Your task to perform on an android device: install app "DoorDash - Food Delivery" Image 0: 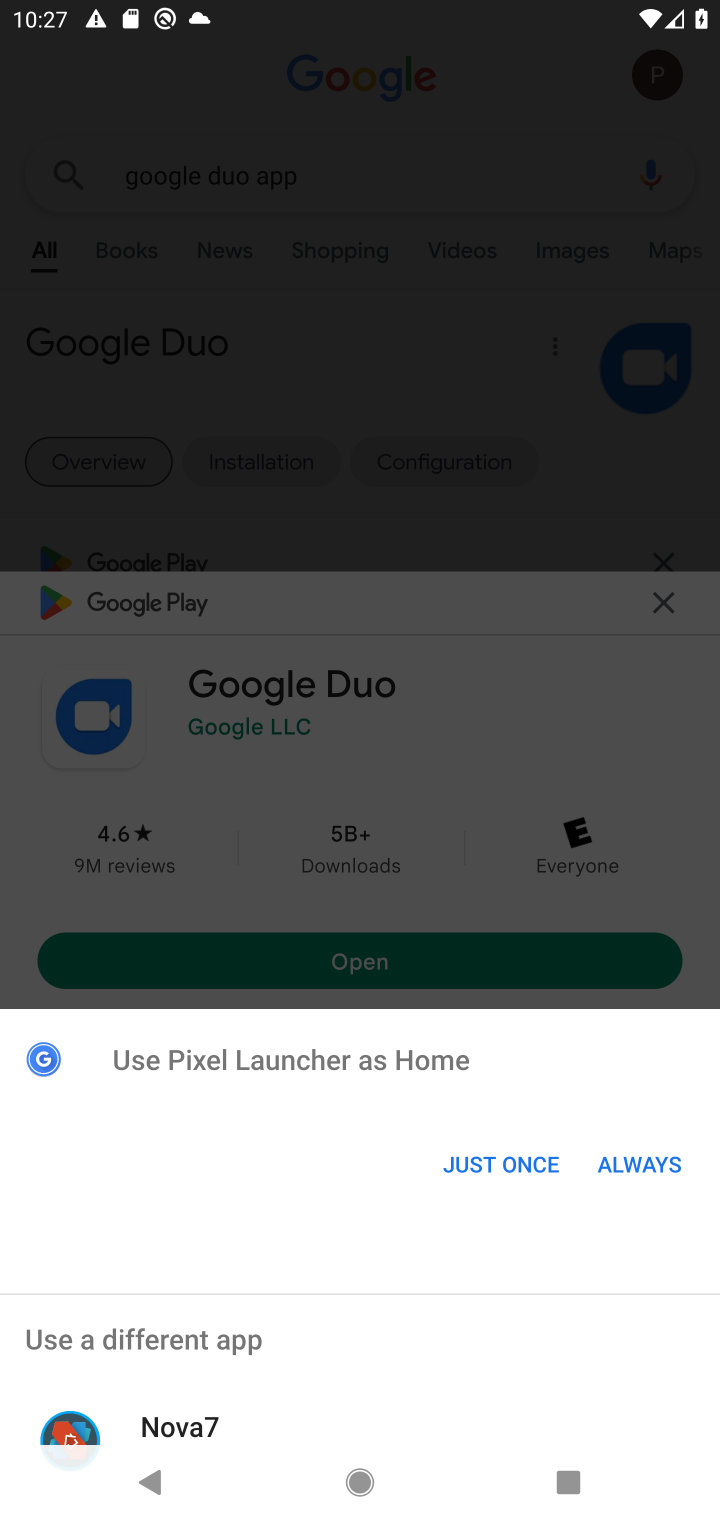
Step 0: click (516, 1173)
Your task to perform on an android device: install app "DoorDash - Food Delivery" Image 1: 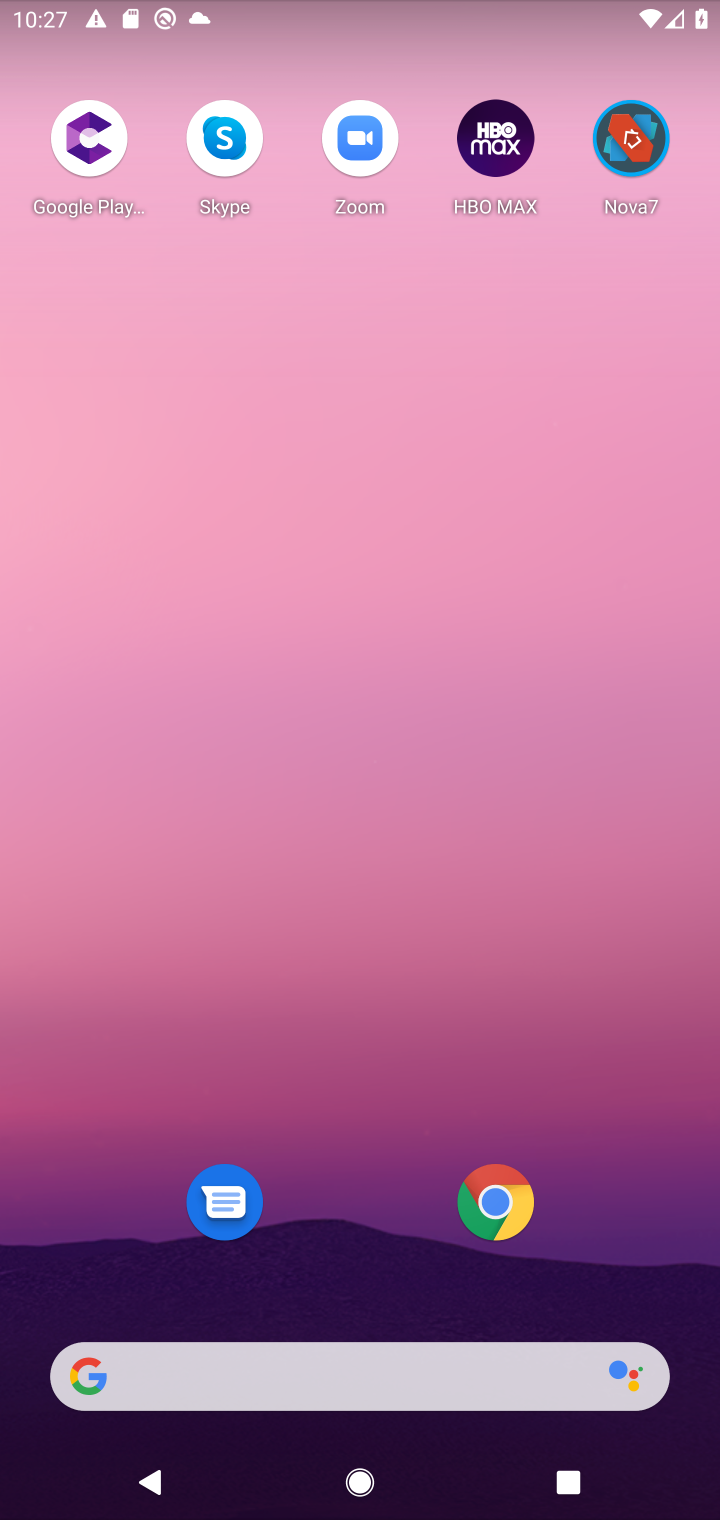
Step 1: click (342, 1352)
Your task to perform on an android device: install app "DoorDash - Food Delivery" Image 2: 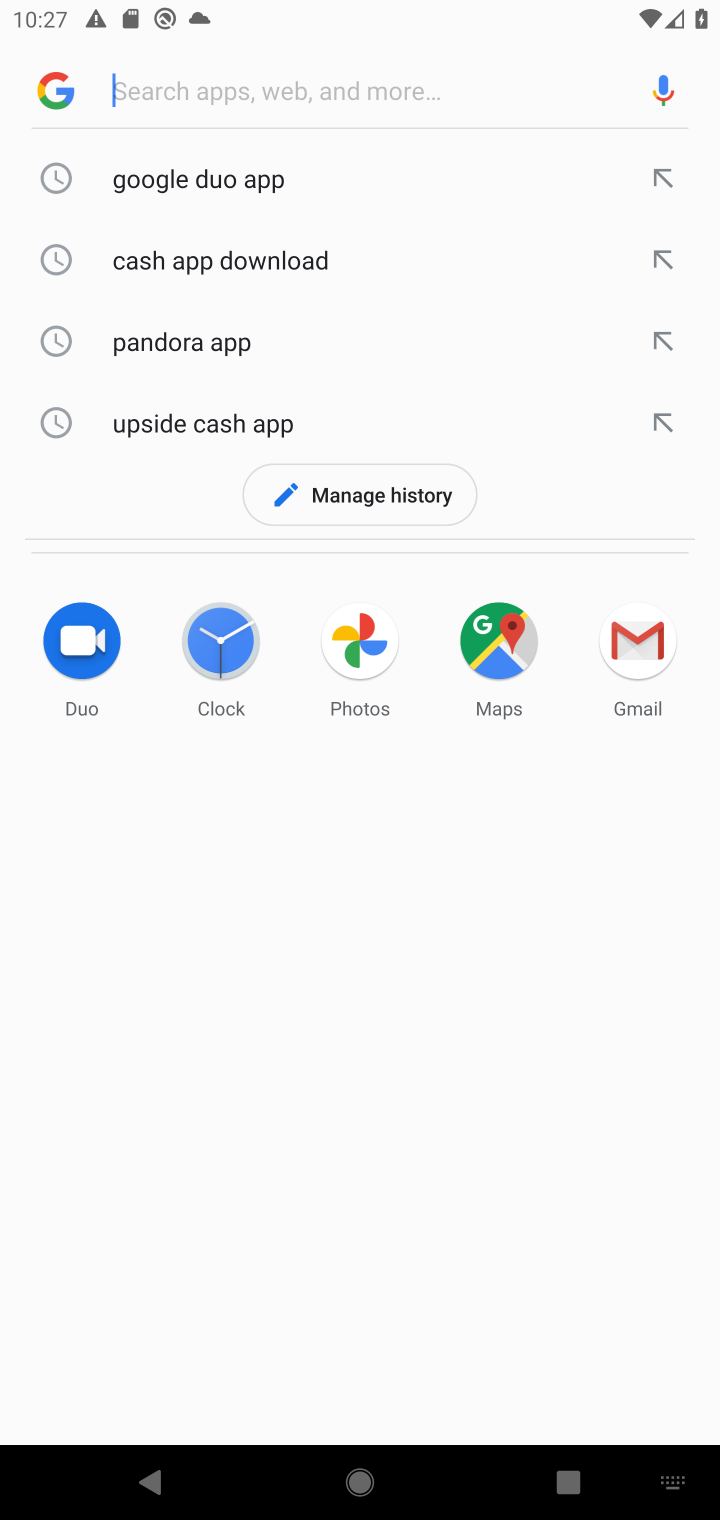
Step 2: type "doordash"
Your task to perform on an android device: install app "DoorDash - Food Delivery" Image 3: 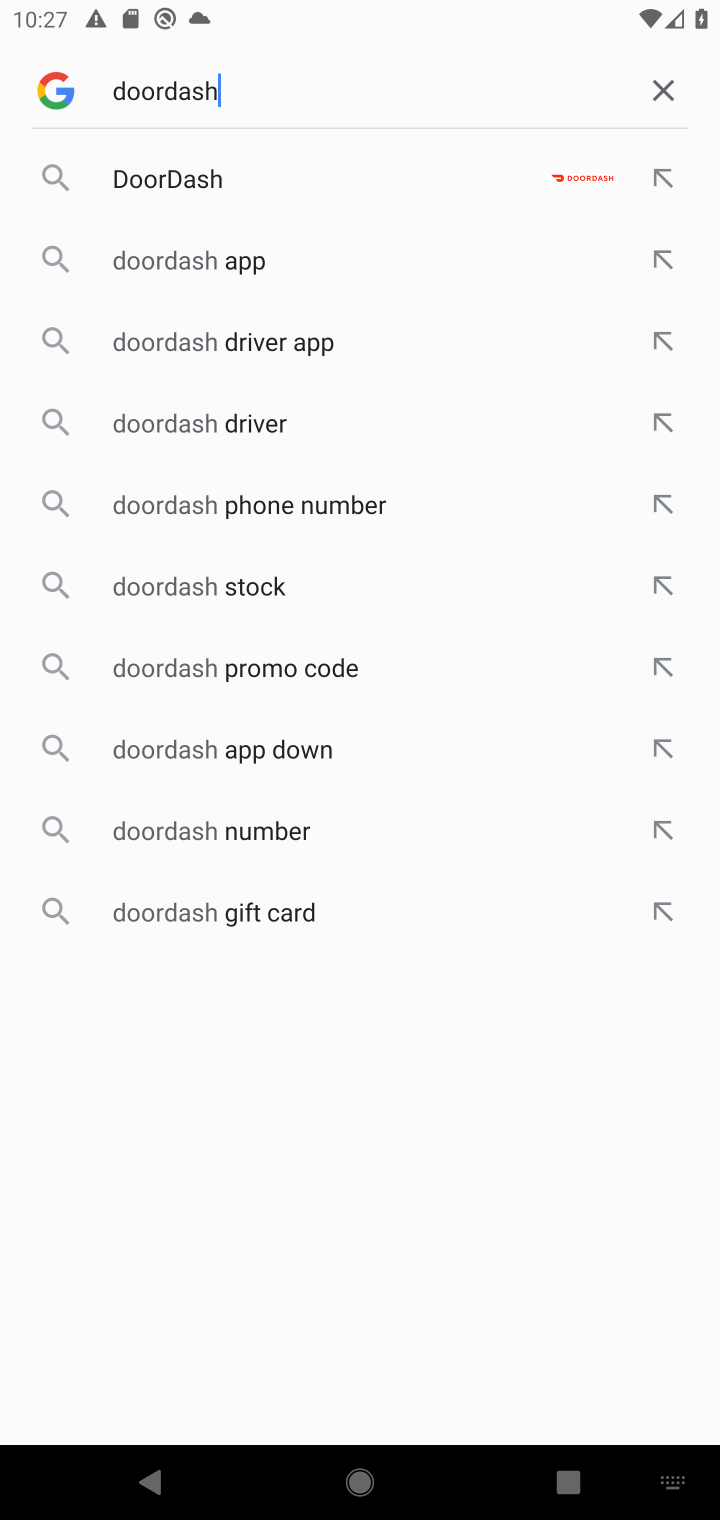
Step 3: click (386, 188)
Your task to perform on an android device: install app "DoorDash - Food Delivery" Image 4: 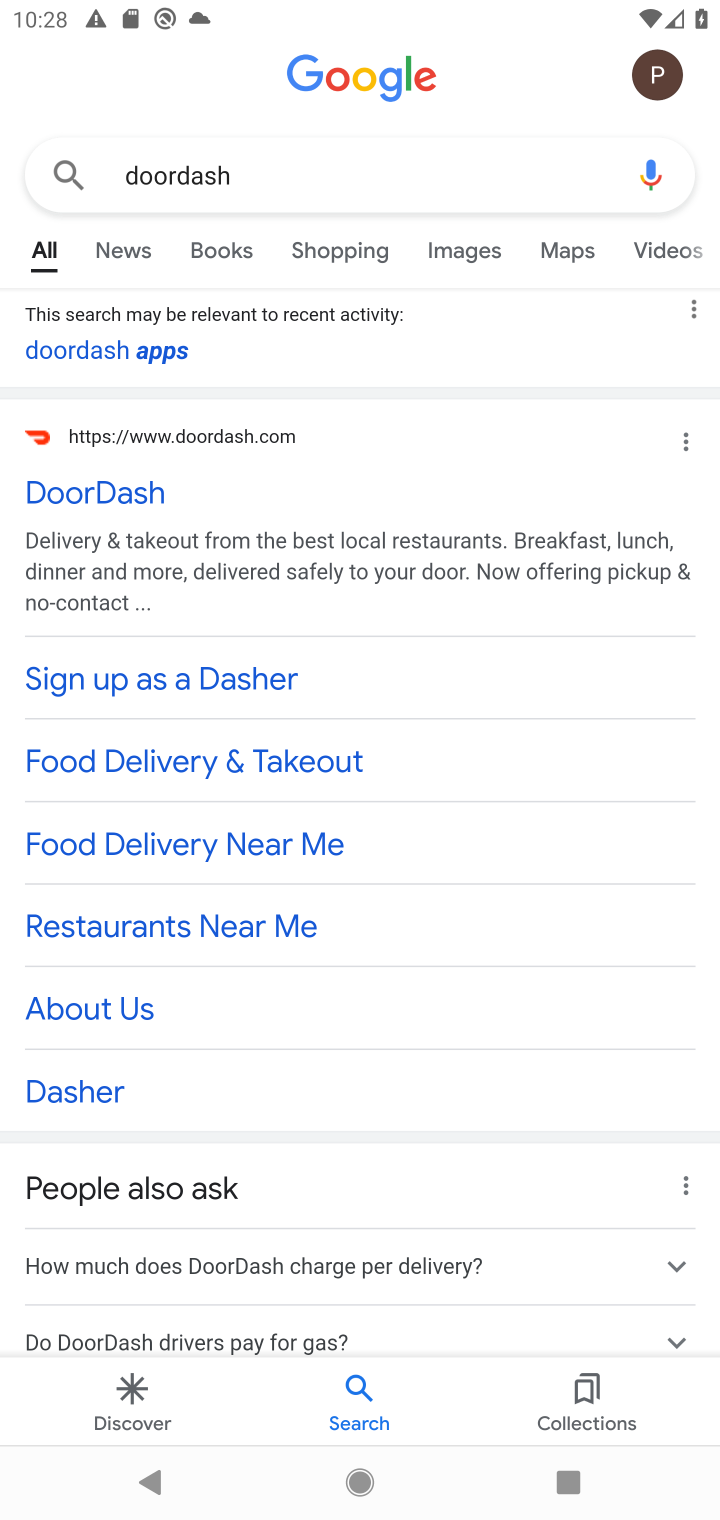
Step 4: drag from (494, 1250) to (482, 820)
Your task to perform on an android device: install app "DoorDash - Food Delivery" Image 5: 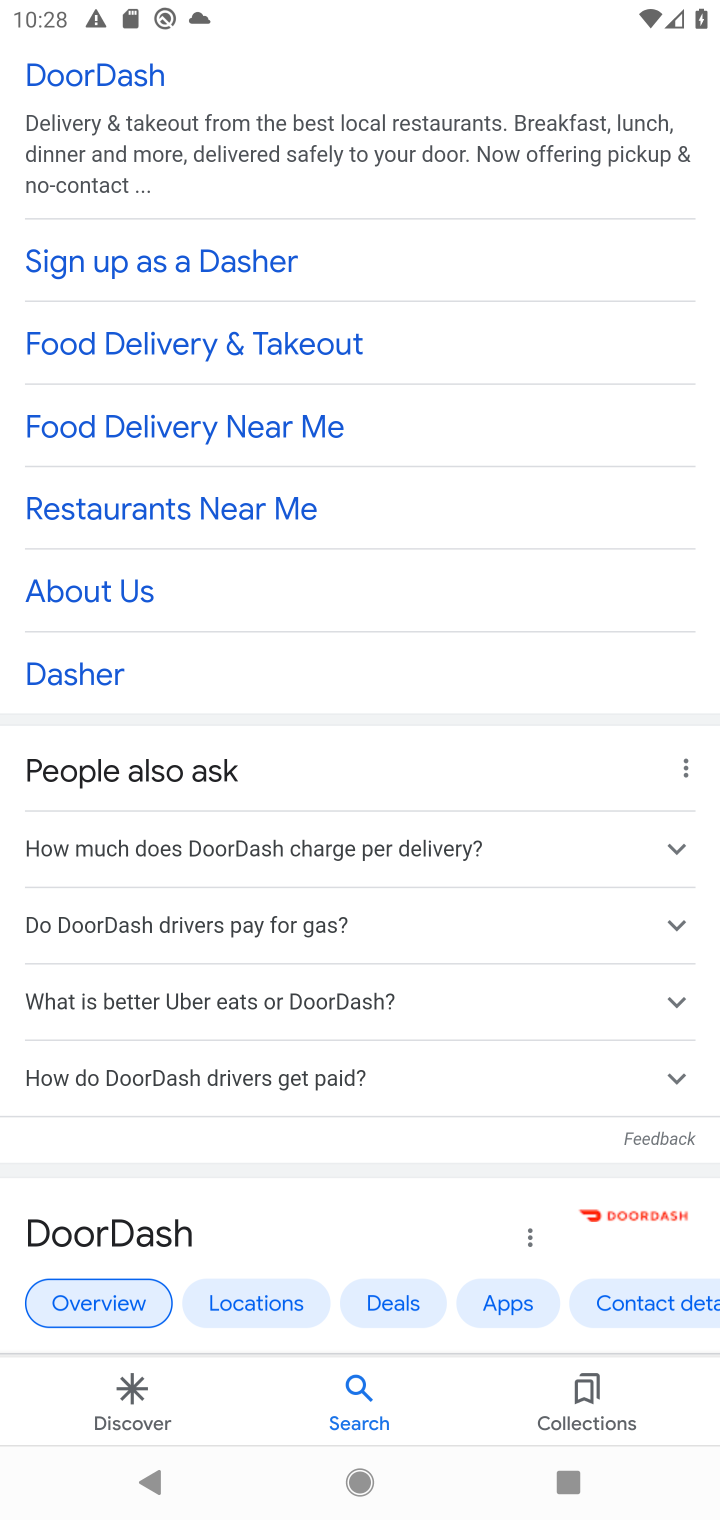
Step 5: drag from (415, 1291) to (508, 655)
Your task to perform on an android device: install app "DoorDash - Food Delivery" Image 6: 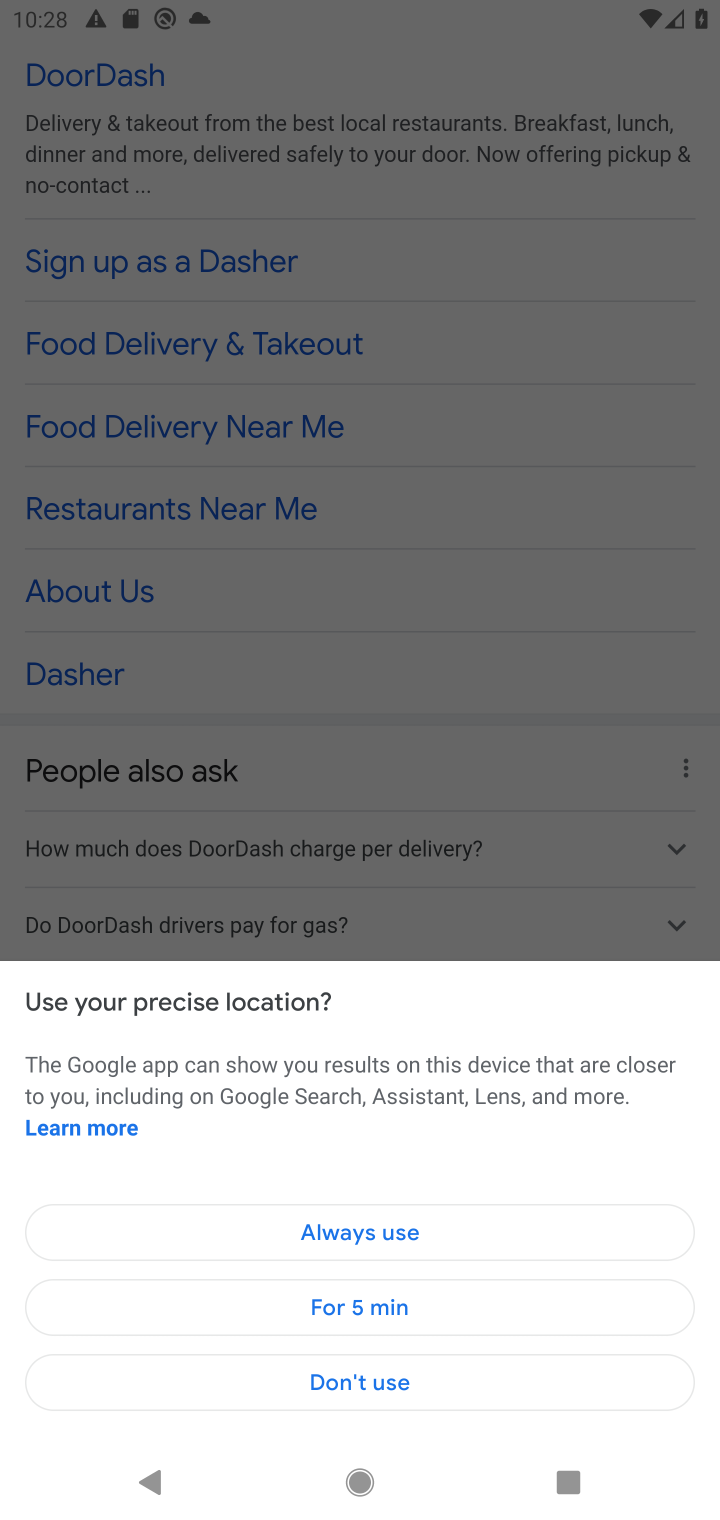
Step 6: click (449, 808)
Your task to perform on an android device: install app "DoorDash - Food Delivery" Image 7: 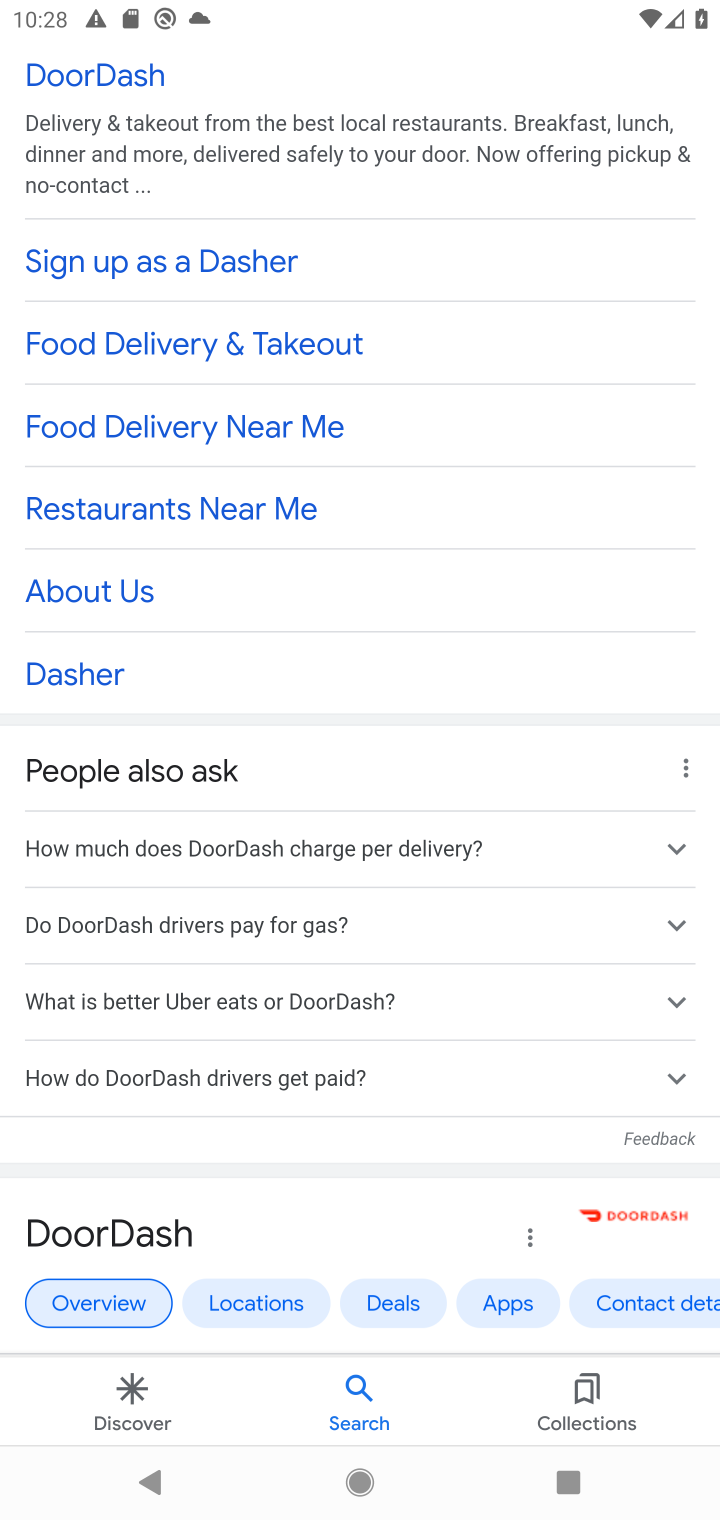
Step 7: task complete